Your task to perform on an android device: empty trash in the gmail app Image 0: 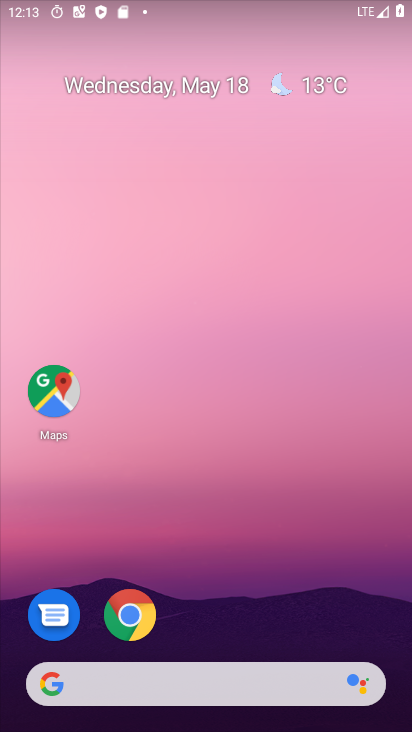
Step 0: press home button
Your task to perform on an android device: empty trash in the gmail app Image 1: 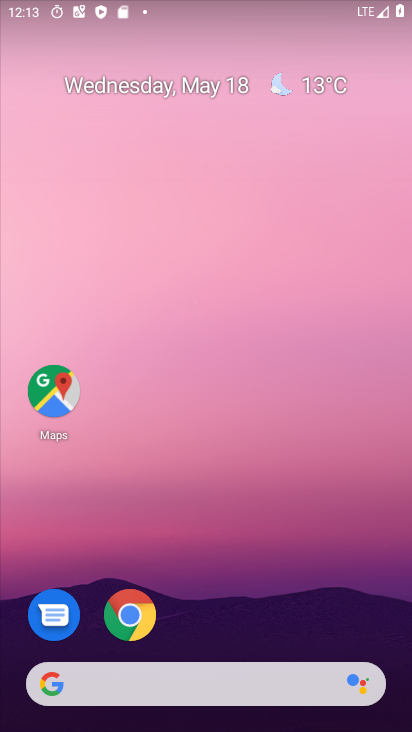
Step 1: drag from (168, 680) to (307, 97)
Your task to perform on an android device: empty trash in the gmail app Image 2: 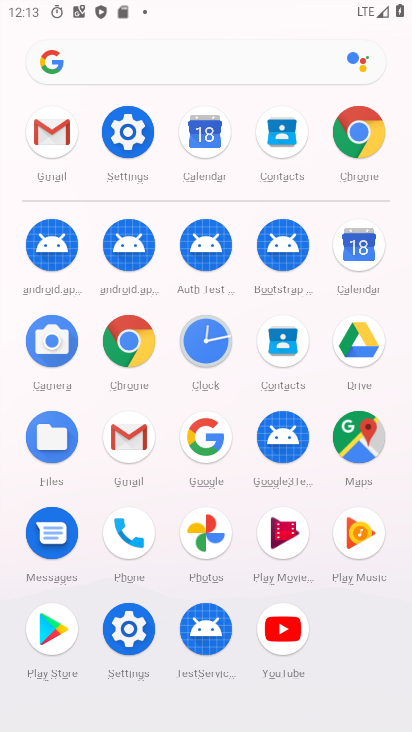
Step 2: click (49, 142)
Your task to perform on an android device: empty trash in the gmail app Image 3: 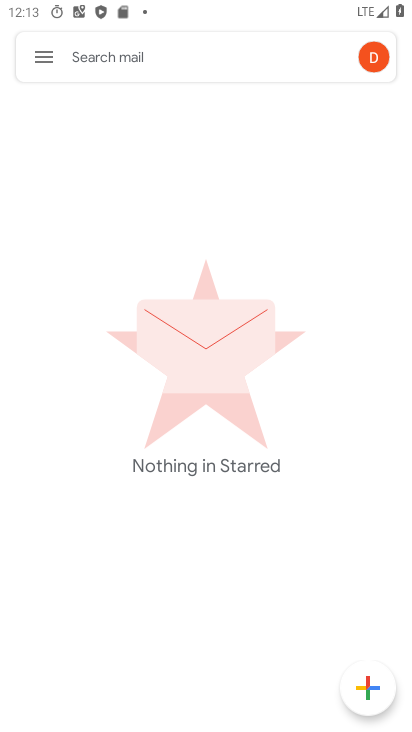
Step 3: click (51, 50)
Your task to perform on an android device: empty trash in the gmail app Image 4: 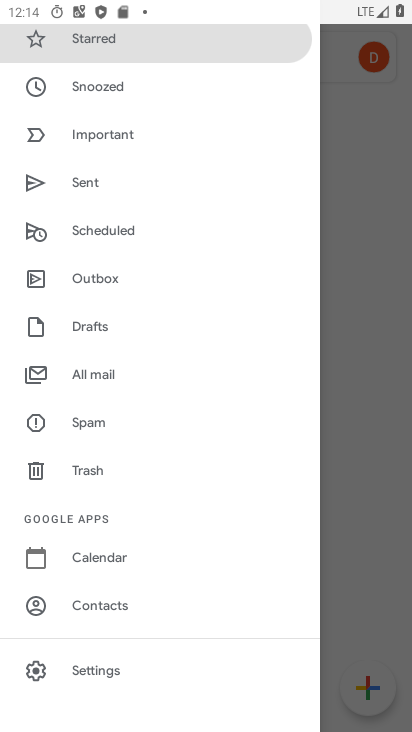
Step 4: click (85, 470)
Your task to perform on an android device: empty trash in the gmail app Image 5: 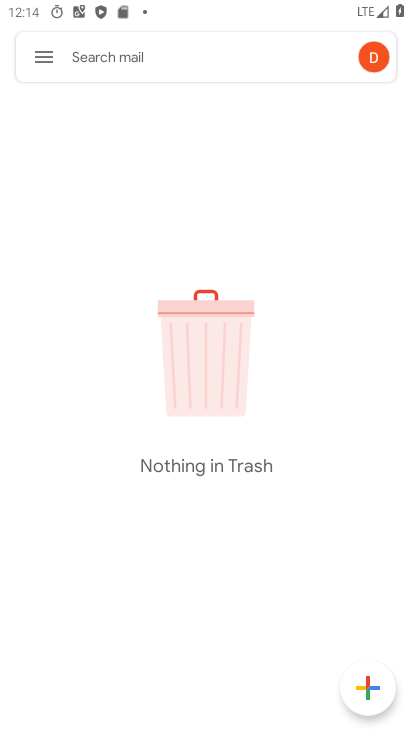
Step 5: task complete